Your task to perform on an android device: Open the web browser Image 0: 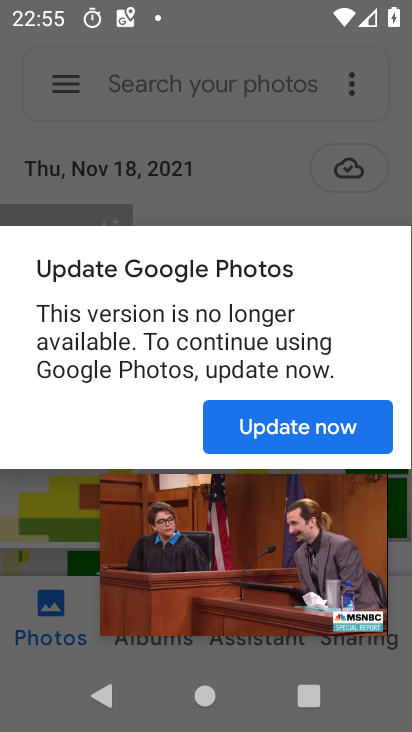
Step 0: press home button
Your task to perform on an android device: Open the web browser Image 1: 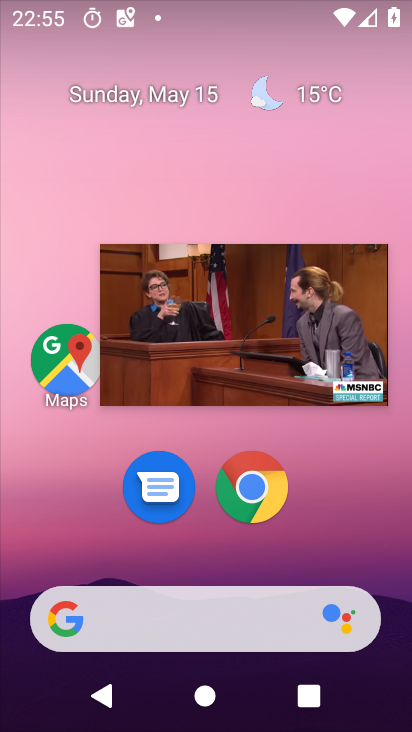
Step 1: click (260, 481)
Your task to perform on an android device: Open the web browser Image 2: 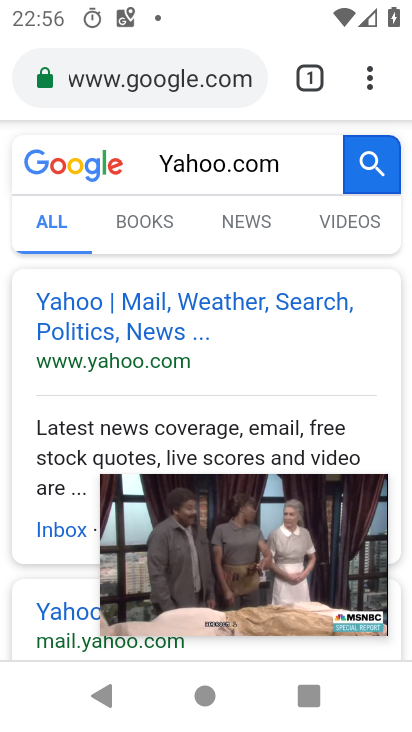
Step 2: task complete